Your task to perform on an android device: Open Google Maps Image 0: 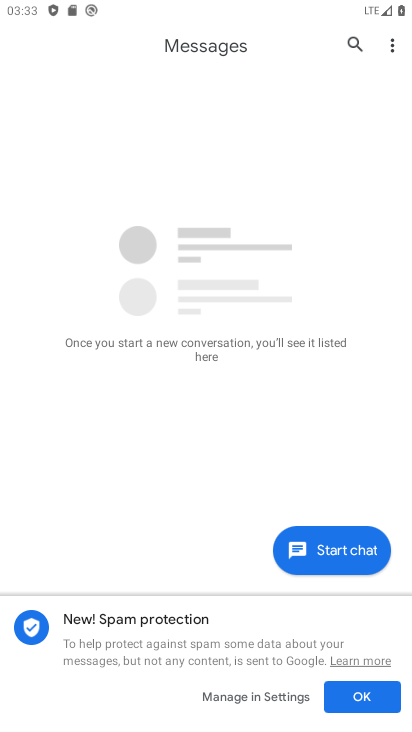
Step 0: press home button
Your task to perform on an android device: Open Google Maps Image 1: 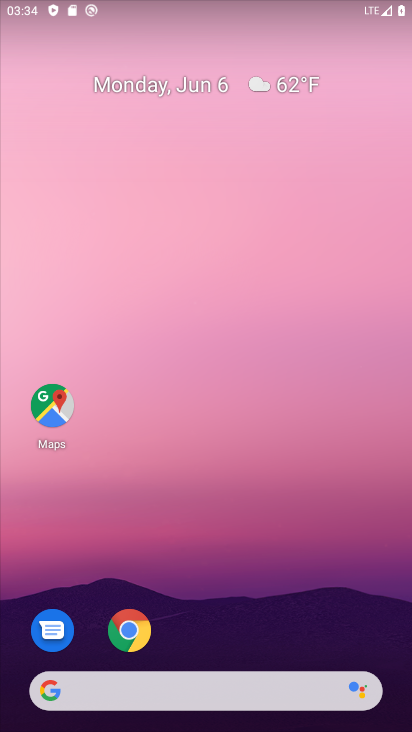
Step 1: click (41, 405)
Your task to perform on an android device: Open Google Maps Image 2: 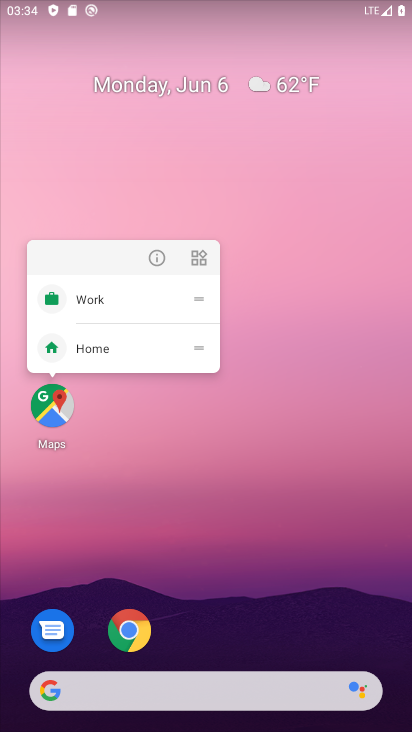
Step 2: click (41, 405)
Your task to perform on an android device: Open Google Maps Image 3: 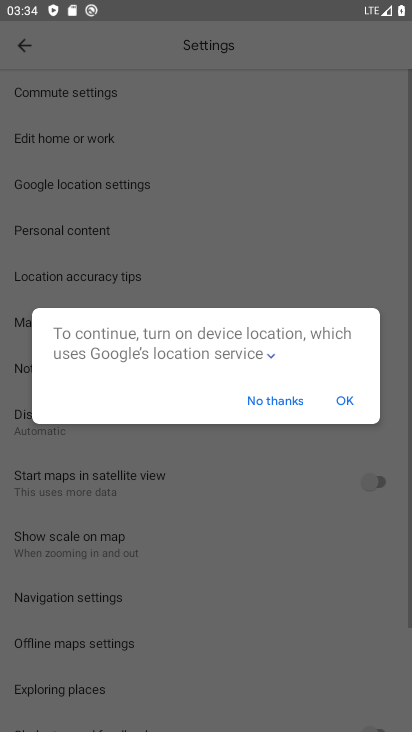
Step 3: task complete